Your task to perform on an android device: Open Amazon Image 0: 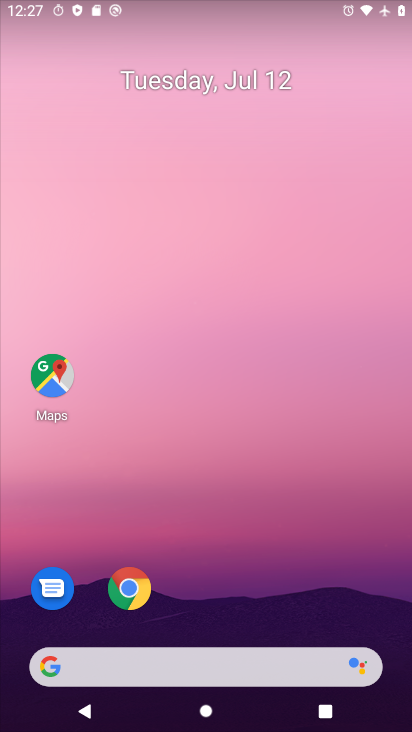
Step 0: press home button
Your task to perform on an android device: Open Amazon Image 1: 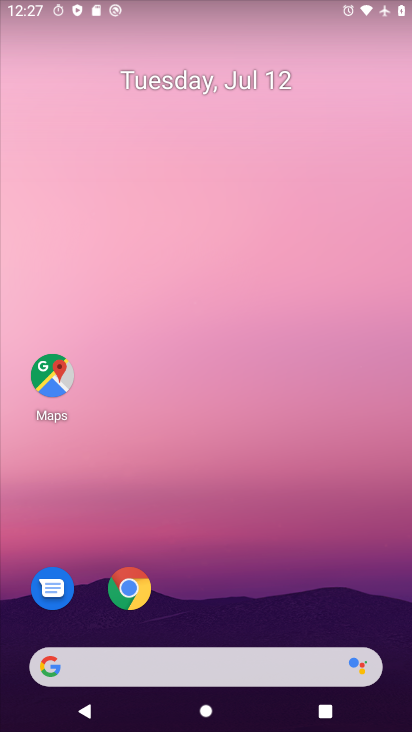
Step 1: click (134, 592)
Your task to perform on an android device: Open Amazon Image 2: 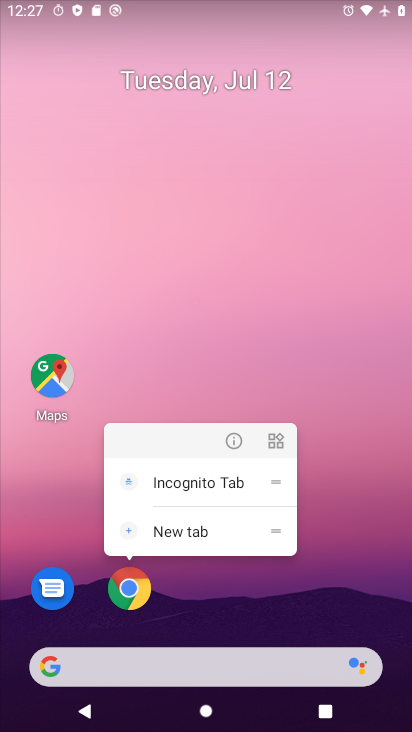
Step 2: click (137, 594)
Your task to perform on an android device: Open Amazon Image 3: 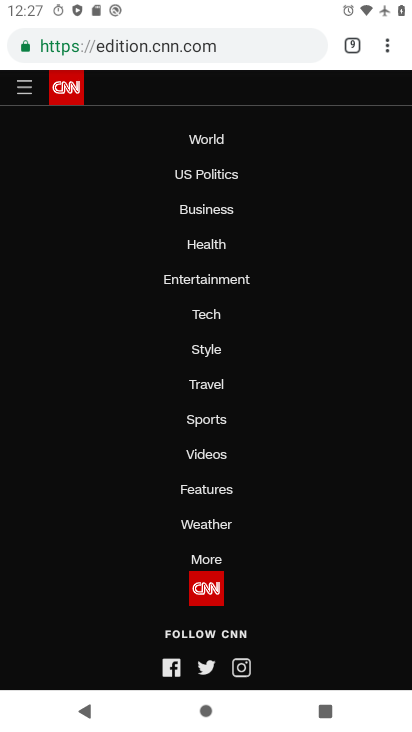
Step 3: drag from (389, 51) to (258, 94)
Your task to perform on an android device: Open Amazon Image 4: 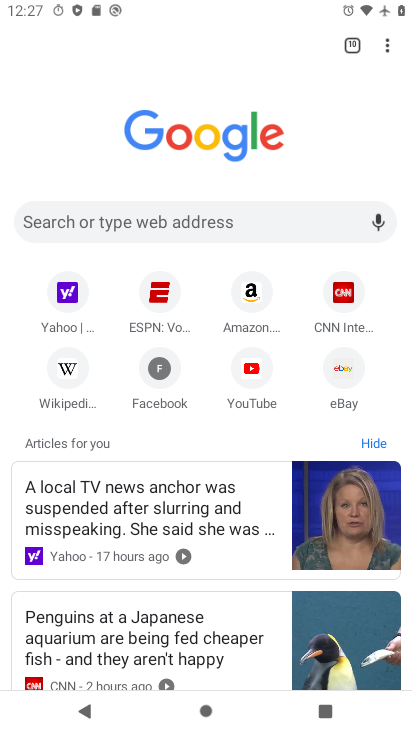
Step 4: click (248, 297)
Your task to perform on an android device: Open Amazon Image 5: 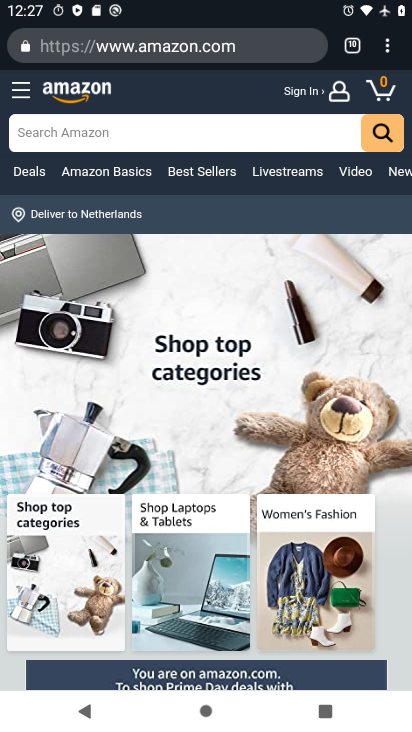
Step 5: task complete